Your task to perform on an android device: turn on javascript in the chrome app Image 0: 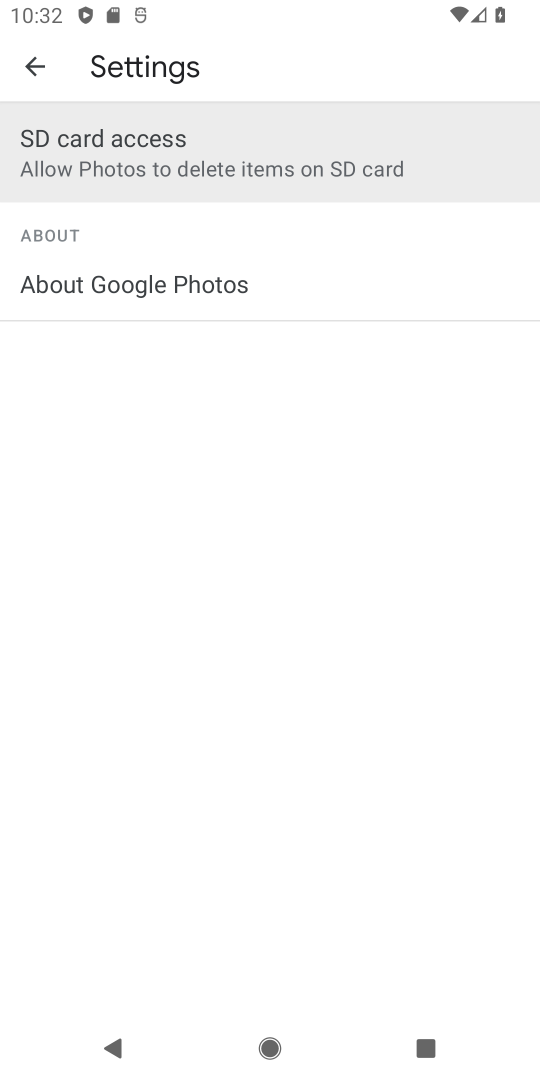
Step 0: press home button
Your task to perform on an android device: turn on javascript in the chrome app Image 1: 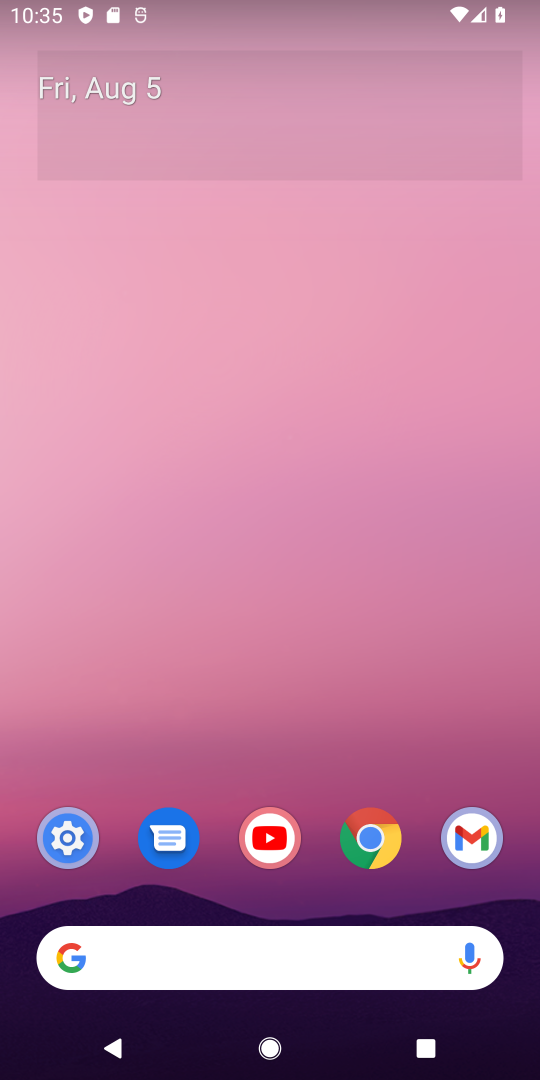
Step 1: drag from (265, 493) to (256, 246)
Your task to perform on an android device: turn on javascript in the chrome app Image 2: 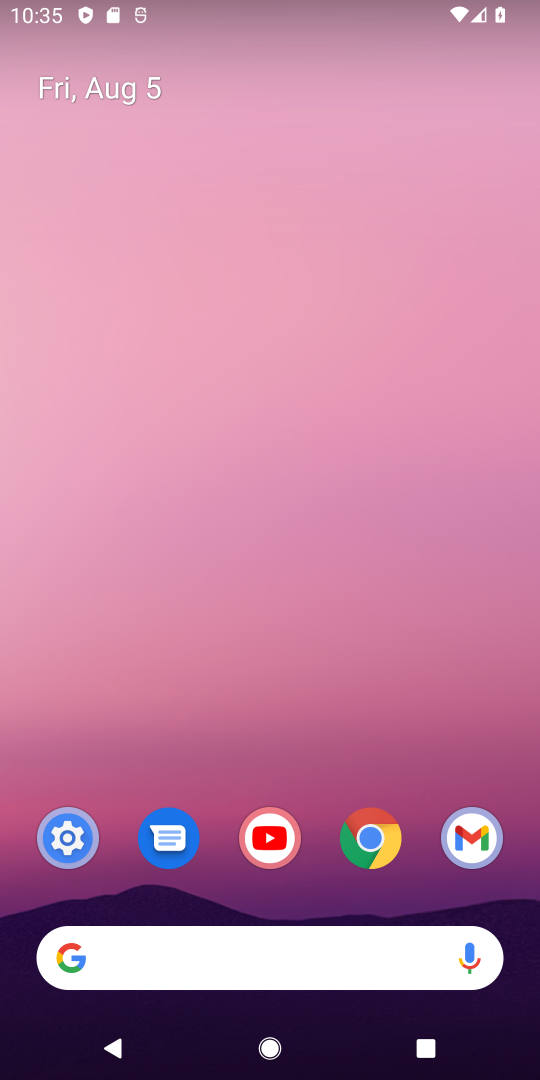
Step 2: click (328, 726)
Your task to perform on an android device: turn on javascript in the chrome app Image 3: 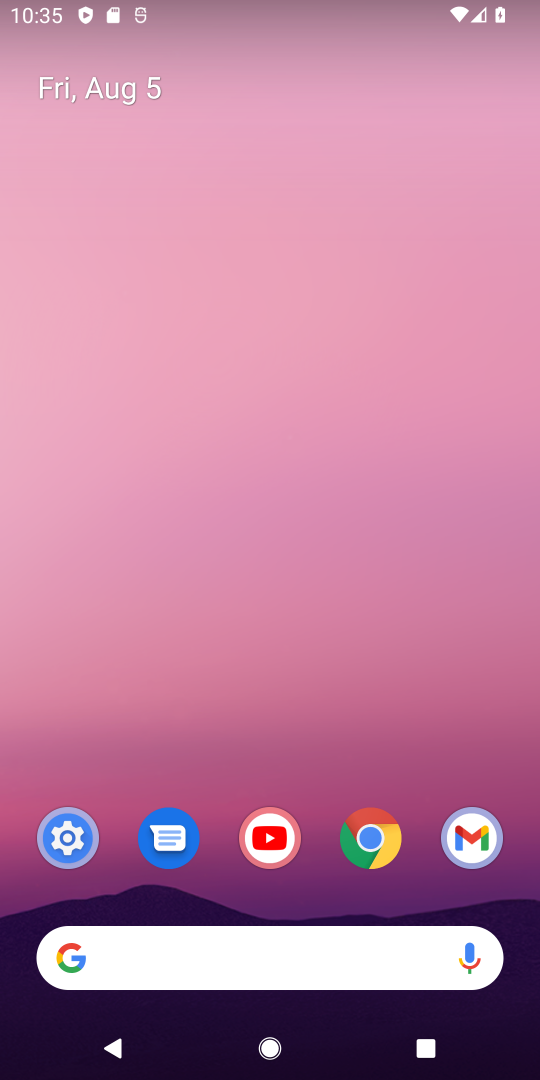
Step 3: click (363, 846)
Your task to perform on an android device: turn on javascript in the chrome app Image 4: 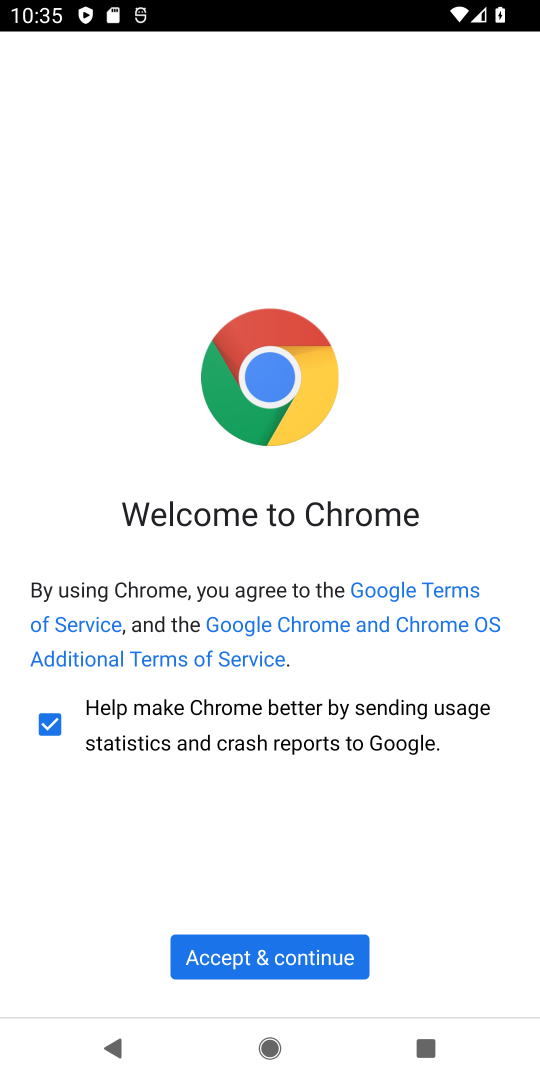
Step 4: click (306, 967)
Your task to perform on an android device: turn on javascript in the chrome app Image 5: 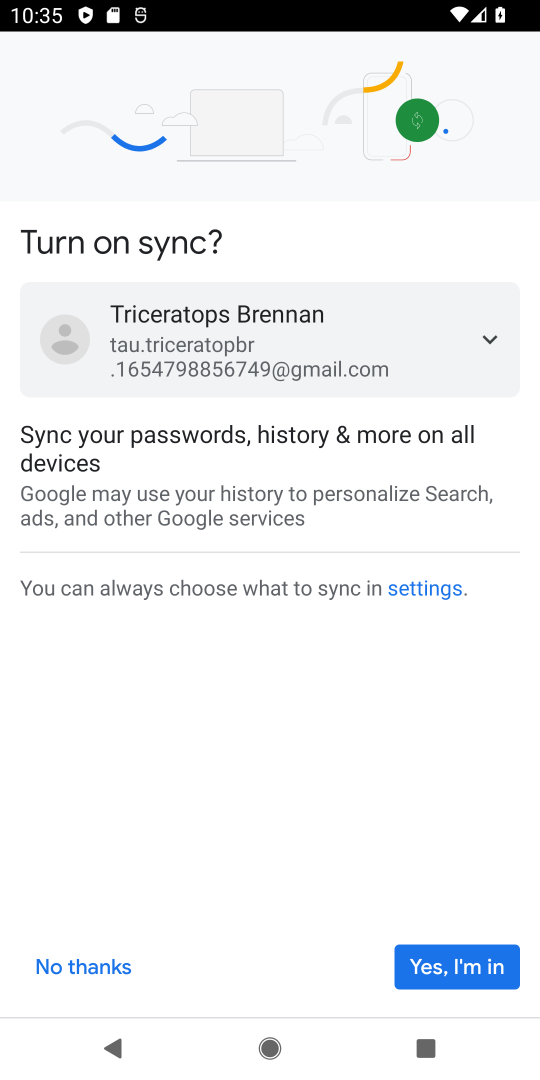
Step 5: click (443, 982)
Your task to perform on an android device: turn on javascript in the chrome app Image 6: 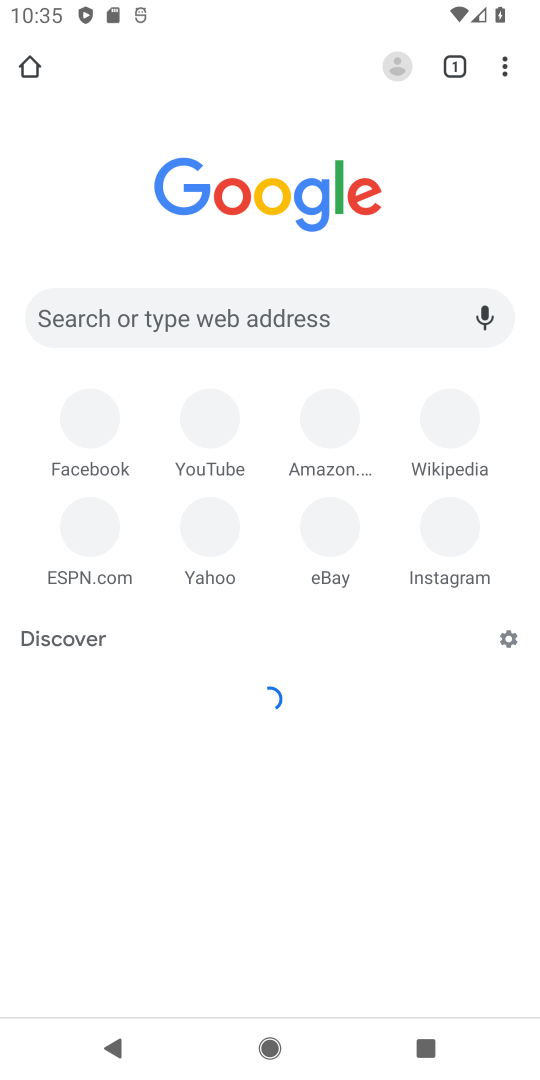
Step 6: task complete